Your task to perform on an android device: Go to Yahoo.com Image 0: 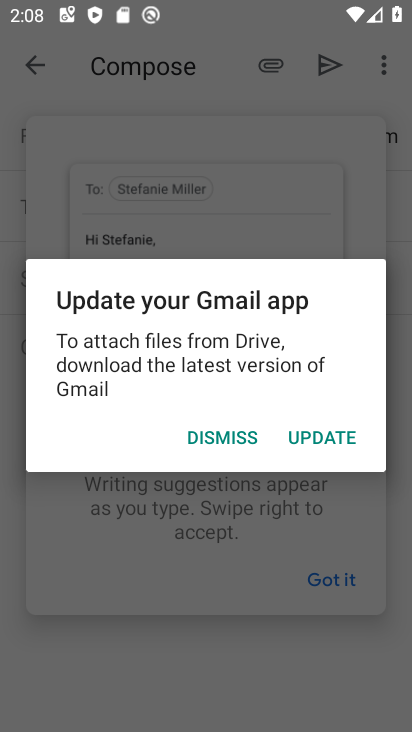
Step 0: press home button
Your task to perform on an android device: Go to Yahoo.com Image 1: 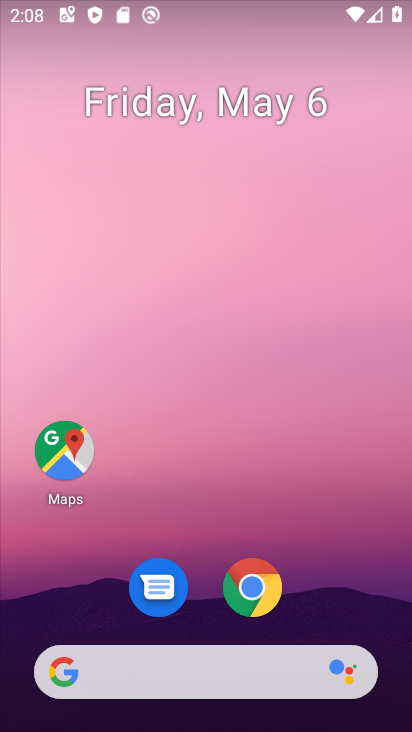
Step 1: click (253, 671)
Your task to perform on an android device: Go to Yahoo.com Image 2: 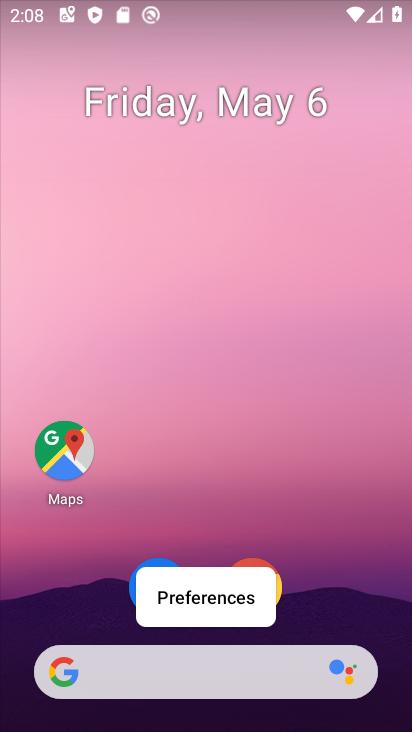
Step 2: click (265, 670)
Your task to perform on an android device: Go to Yahoo.com Image 3: 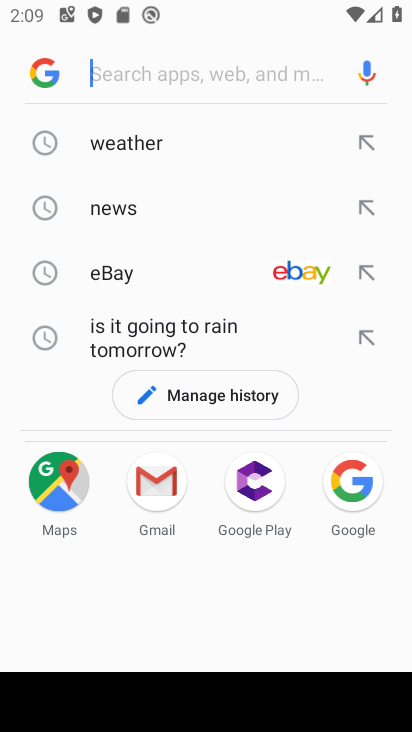
Step 3: type "yahoo.com"
Your task to perform on an android device: Go to Yahoo.com Image 4: 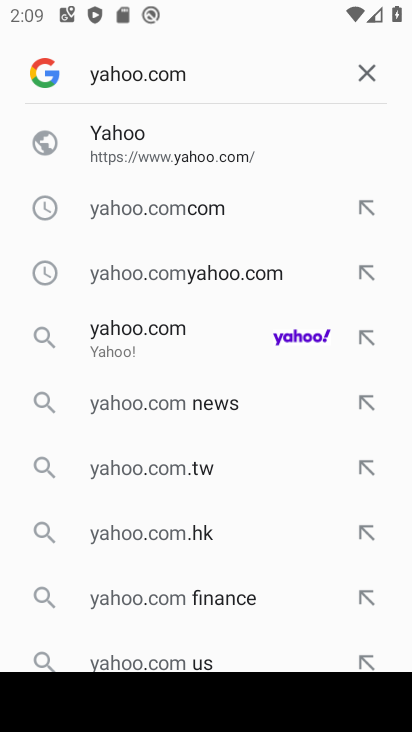
Step 4: click (217, 326)
Your task to perform on an android device: Go to Yahoo.com Image 5: 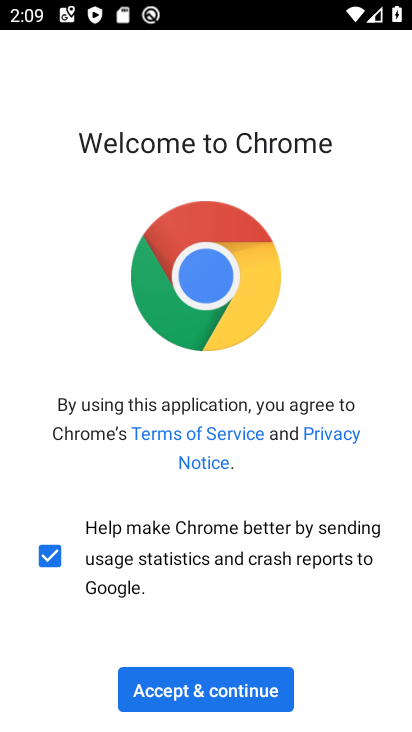
Step 5: click (254, 690)
Your task to perform on an android device: Go to Yahoo.com Image 6: 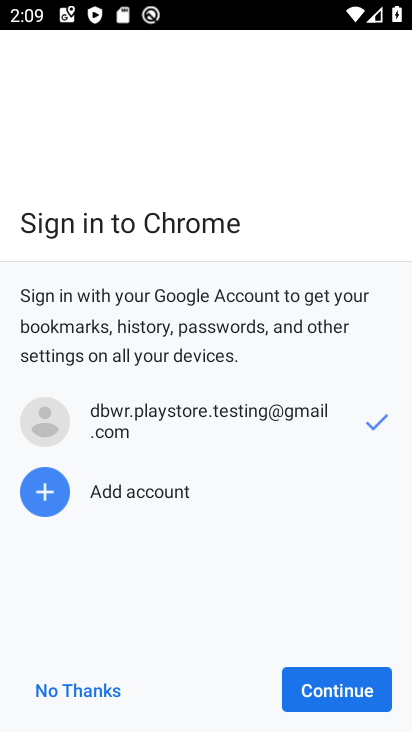
Step 6: click (308, 689)
Your task to perform on an android device: Go to Yahoo.com Image 7: 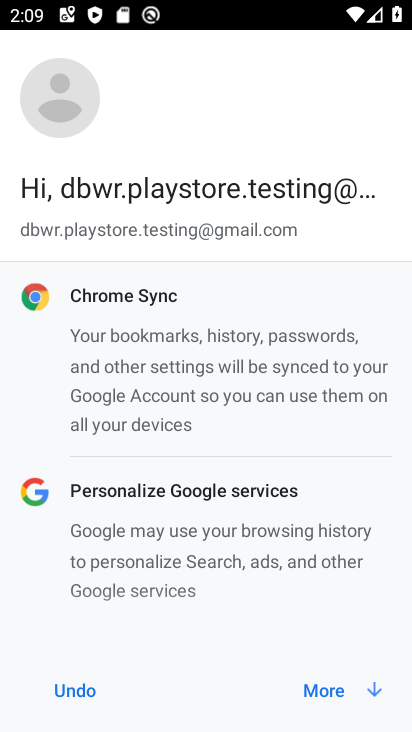
Step 7: click (308, 687)
Your task to perform on an android device: Go to Yahoo.com Image 8: 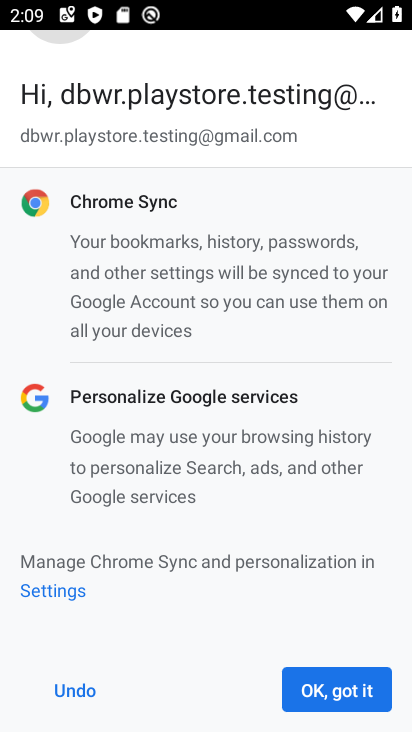
Step 8: click (332, 689)
Your task to perform on an android device: Go to Yahoo.com Image 9: 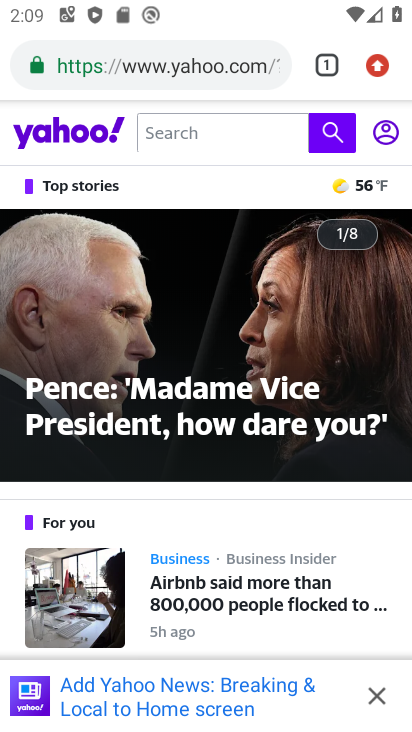
Step 9: task complete